Your task to perform on an android device: Open Yahoo.com Image 0: 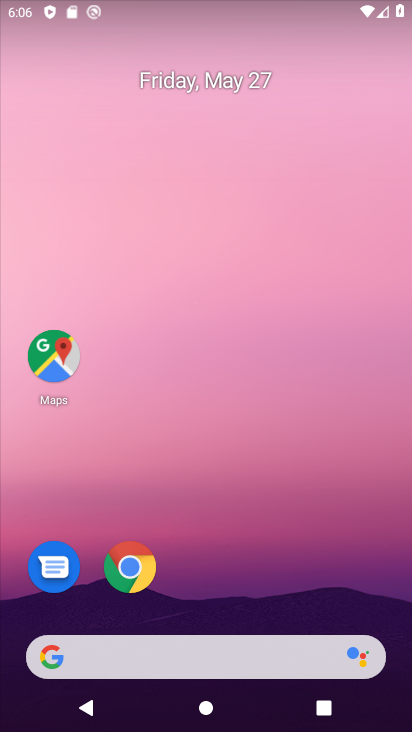
Step 0: drag from (214, 596) to (194, 0)
Your task to perform on an android device: Open Yahoo.com Image 1: 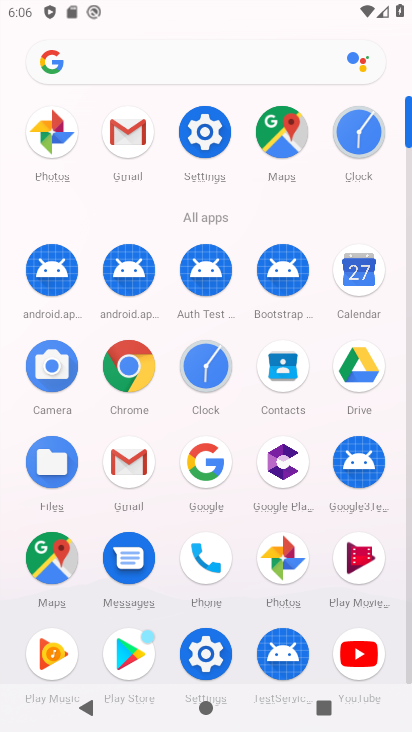
Step 1: click (133, 369)
Your task to perform on an android device: Open Yahoo.com Image 2: 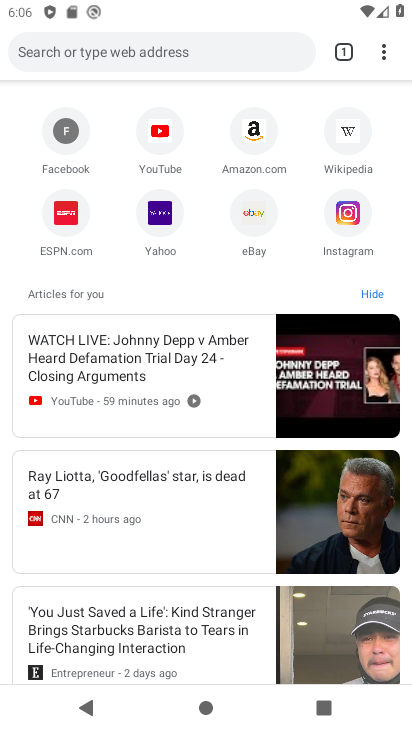
Step 2: click (157, 220)
Your task to perform on an android device: Open Yahoo.com Image 3: 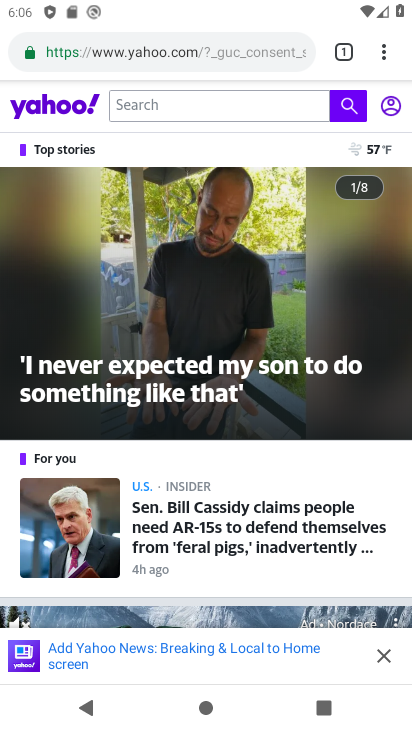
Step 3: task complete